Your task to perform on an android device: Open the map Image 0: 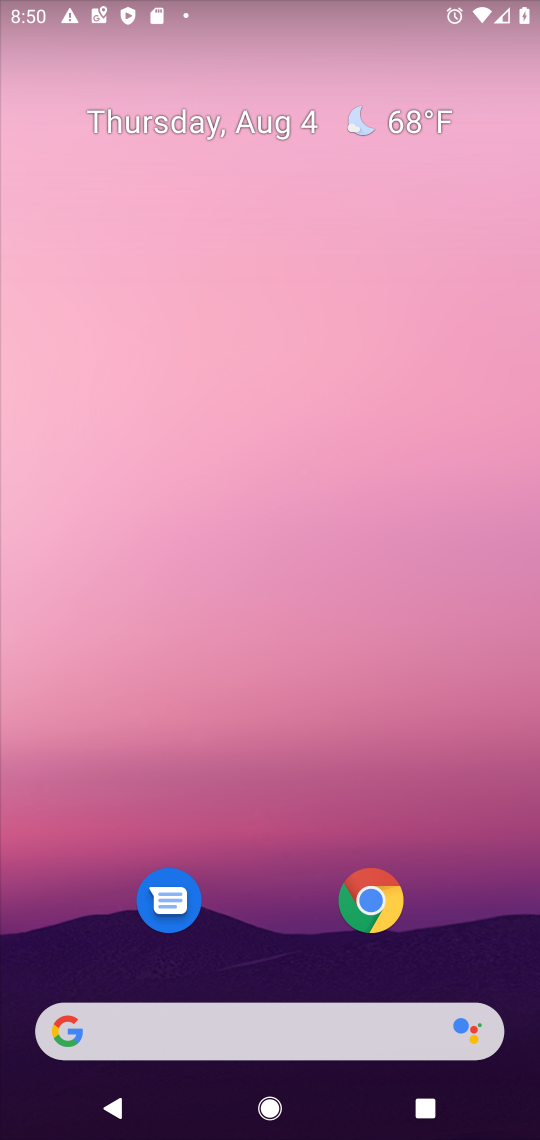
Step 0: drag from (254, 1021) to (294, 351)
Your task to perform on an android device: Open the map Image 1: 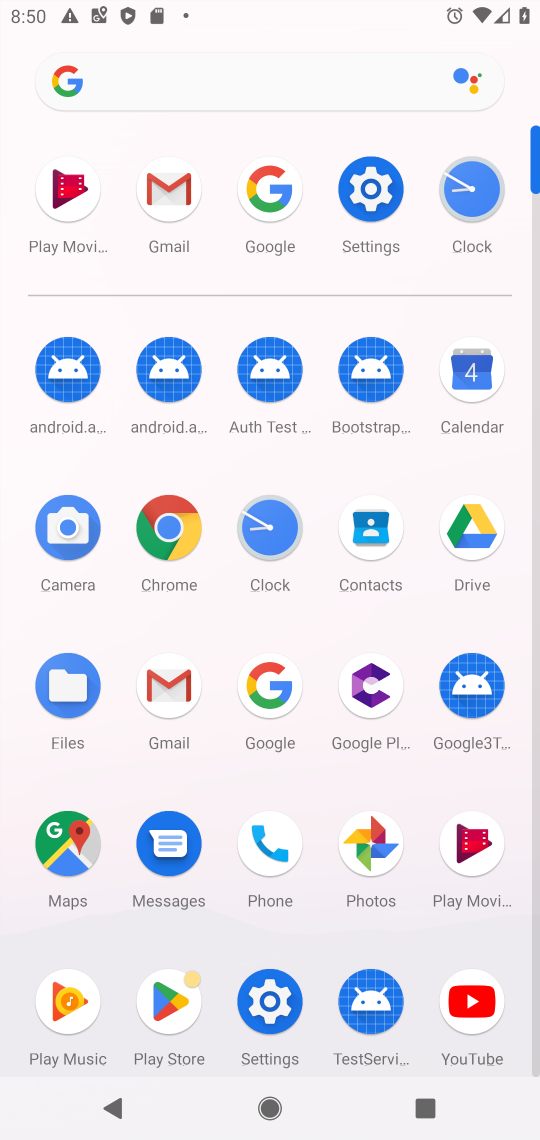
Step 1: click (73, 844)
Your task to perform on an android device: Open the map Image 2: 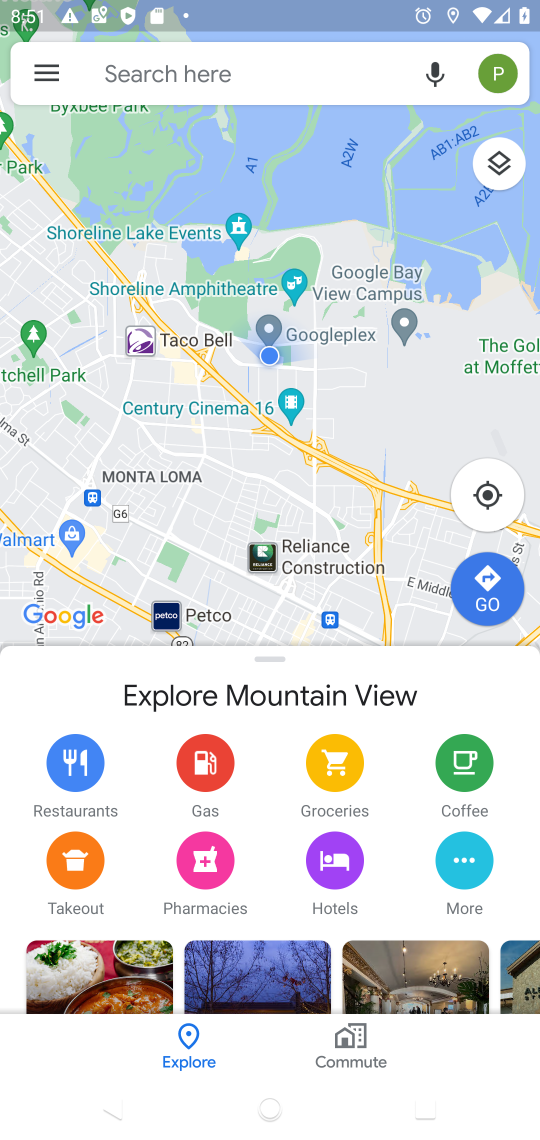
Step 2: task complete